Your task to perform on an android device: check storage Image 0: 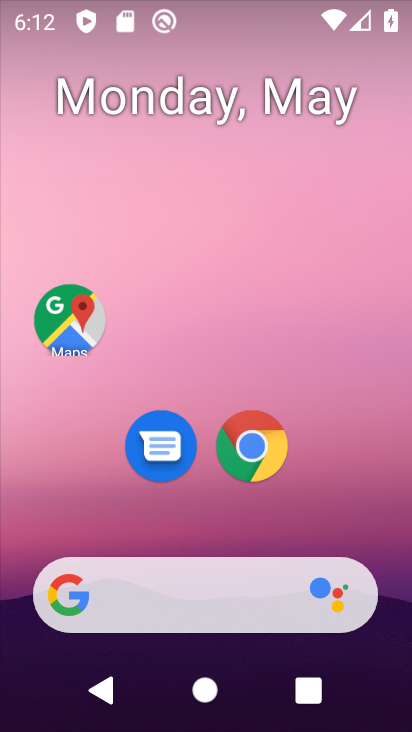
Step 0: drag from (341, 478) to (216, 110)
Your task to perform on an android device: check storage Image 1: 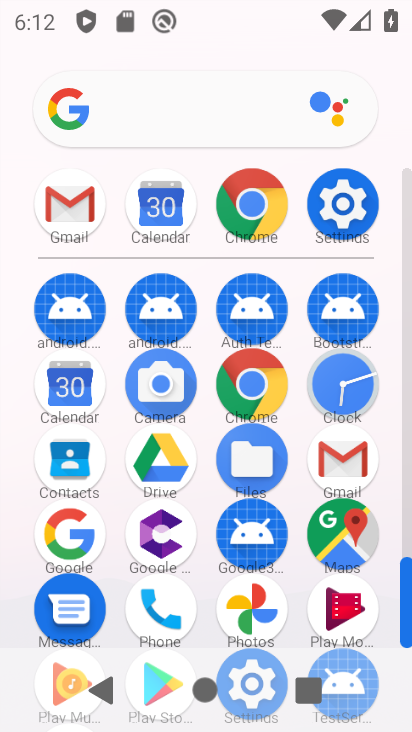
Step 1: click (336, 205)
Your task to perform on an android device: check storage Image 2: 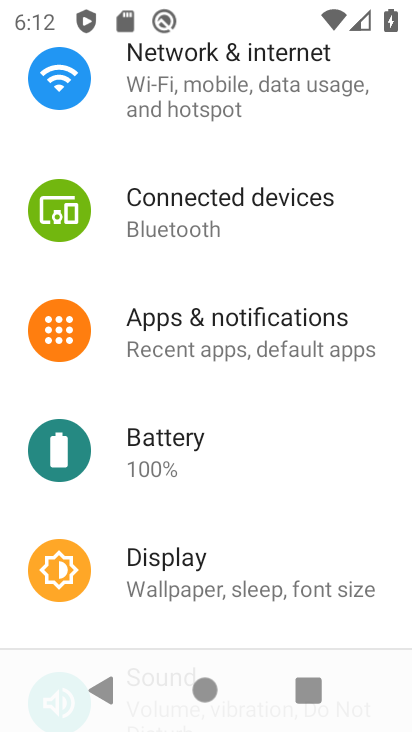
Step 2: drag from (241, 148) to (231, 497)
Your task to perform on an android device: check storage Image 3: 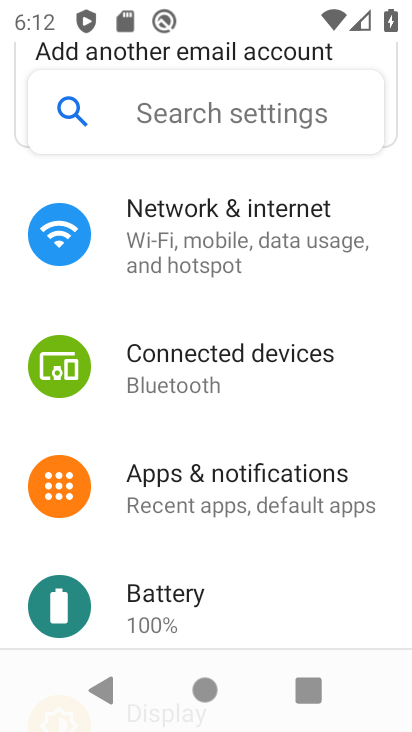
Step 3: drag from (239, 539) to (246, 90)
Your task to perform on an android device: check storage Image 4: 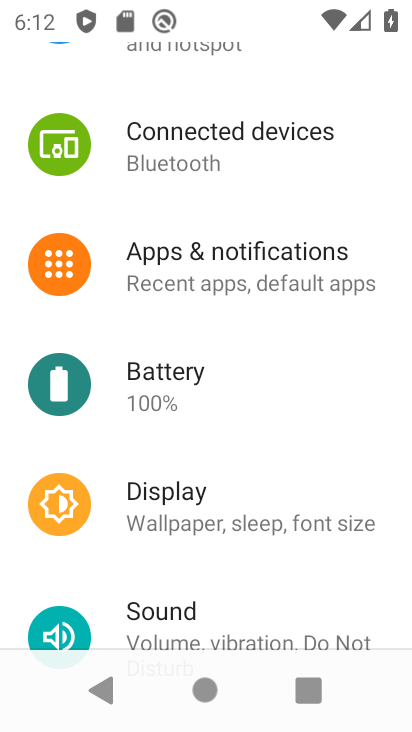
Step 4: drag from (250, 413) to (195, 162)
Your task to perform on an android device: check storage Image 5: 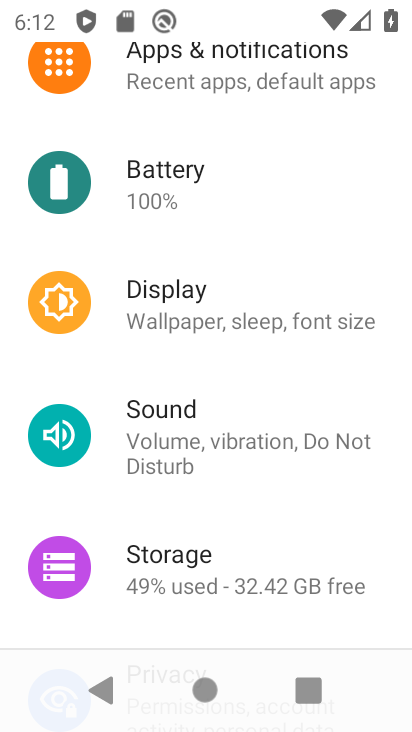
Step 5: click (179, 567)
Your task to perform on an android device: check storage Image 6: 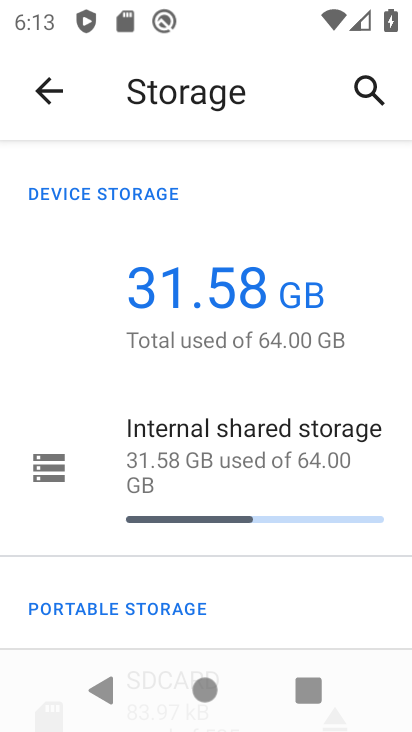
Step 6: task complete